Your task to perform on an android device: Go to accessibility settings Image 0: 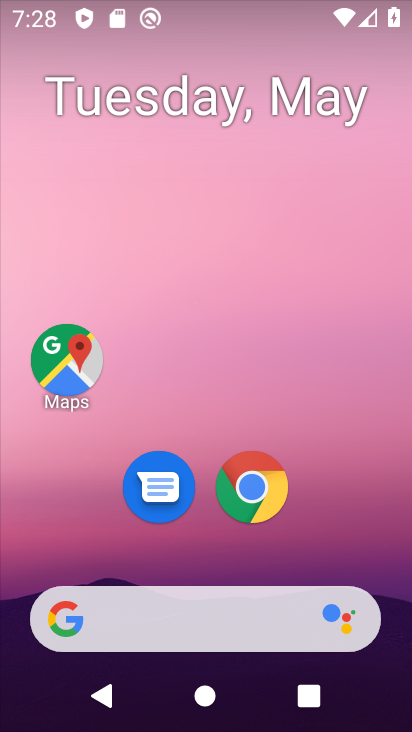
Step 0: drag from (393, 541) to (391, 177)
Your task to perform on an android device: Go to accessibility settings Image 1: 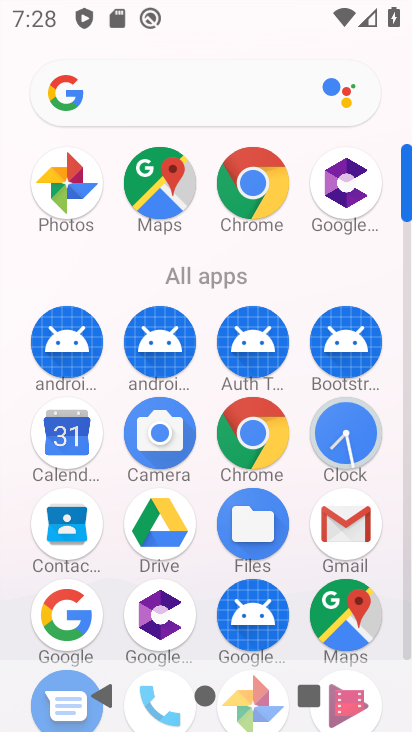
Step 1: drag from (386, 568) to (403, 249)
Your task to perform on an android device: Go to accessibility settings Image 2: 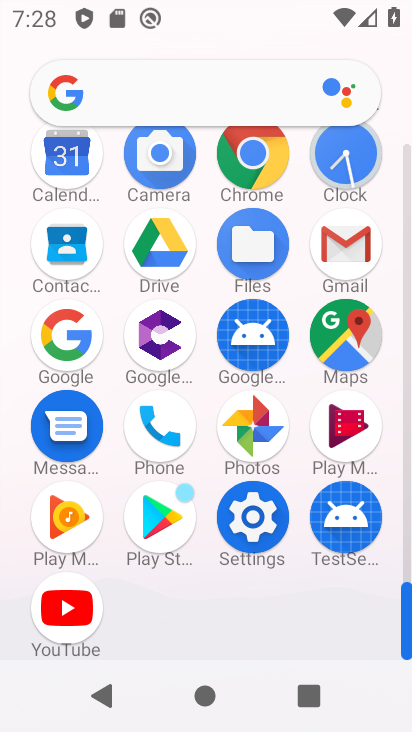
Step 2: click (262, 526)
Your task to perform on an android device: Go to accessibility settings Image 3: 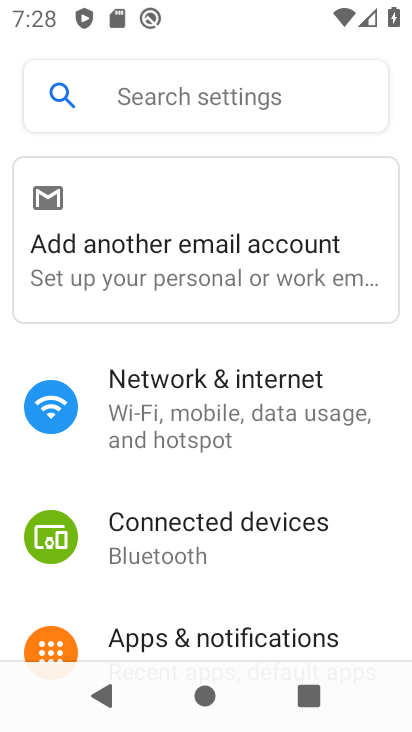
Step 3: drag from (365, 539) to (366, 385)
Your task to perform on an android device: Go to accessibility settings Image 4: 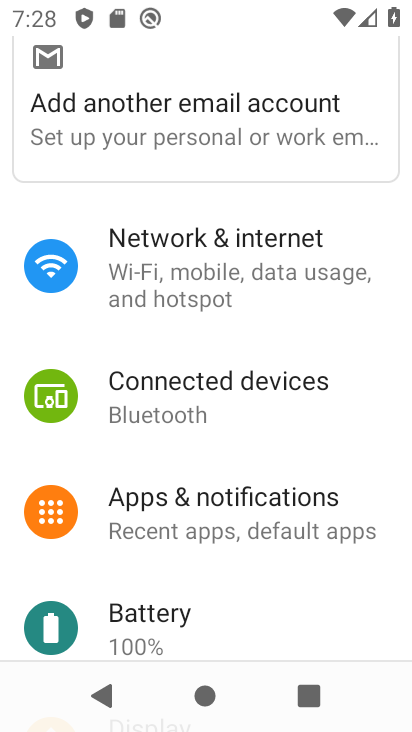
Step 4: drag from (359, 581) to (357, 451)
Your task to perform on an android device: Go to accessibility settings Image 5: 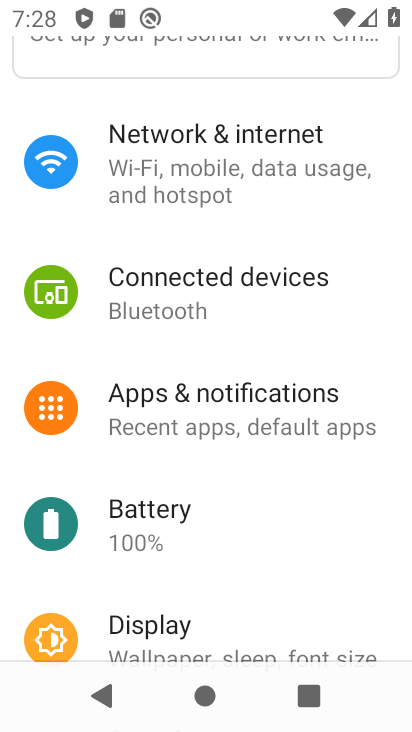
Step 5: drag from (357, 568) to (354, 391)
Your task to perform on an android device: Go to accessibility settings Image 6: 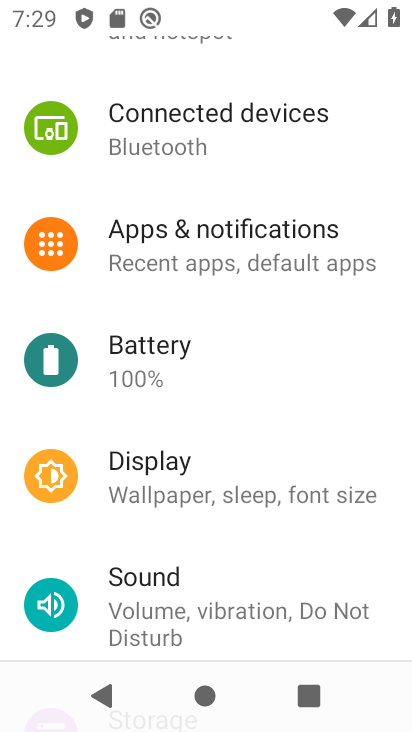
Step 6: drag from (332, 559) to (342, 433)
Your task to perform on an android device: Go to accessibility settings Image 7: 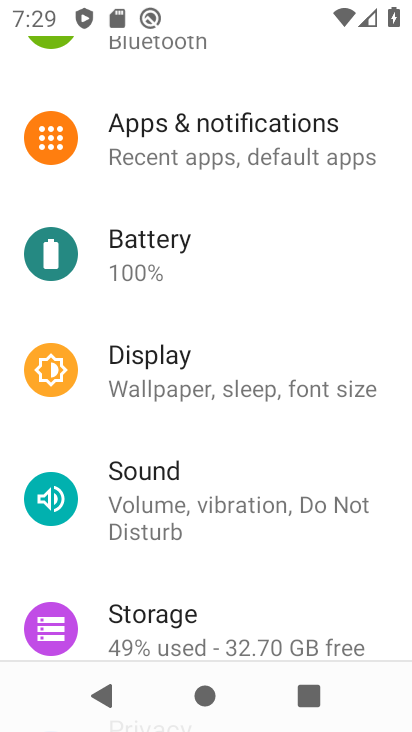
Step 7: drag from (340, 559) to (341, 421)
Your task to perform on an android device: Go to accessibility settings Image 8: 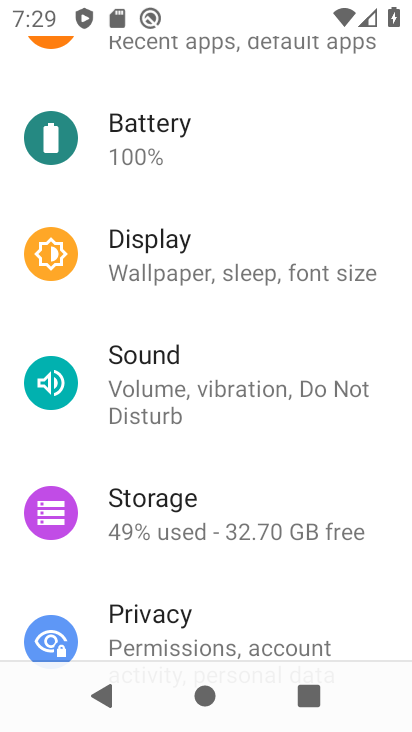
Step 8: drag from (346, 565) to (353, 426)
Your task to perform on an android device: Go to accessibility settings Image 9: 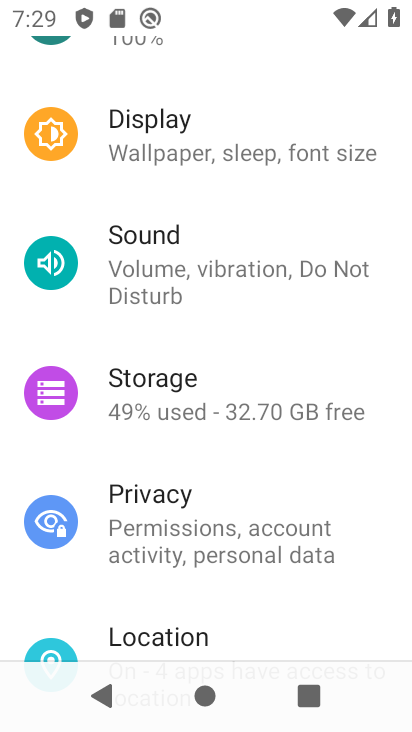
Step 9: drag from (360, 588) to (357, 428)
Your task to perform on an android device: Go to accessibility settings Image 10: 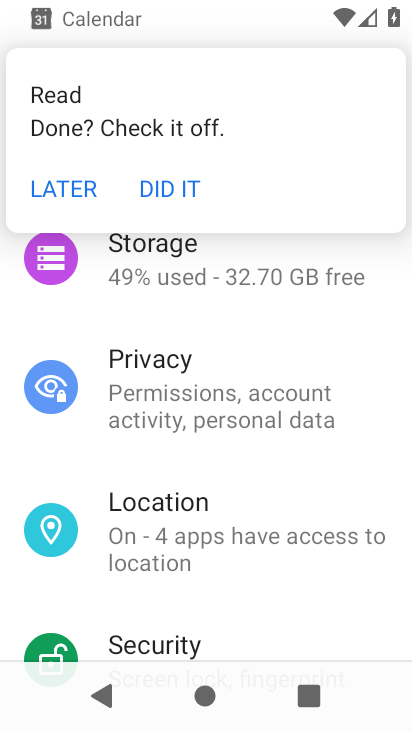
Step 10: drag from (354, 590) to (356, 428)
Your task to perform on an android device: Go to accessibility settings Image 11: 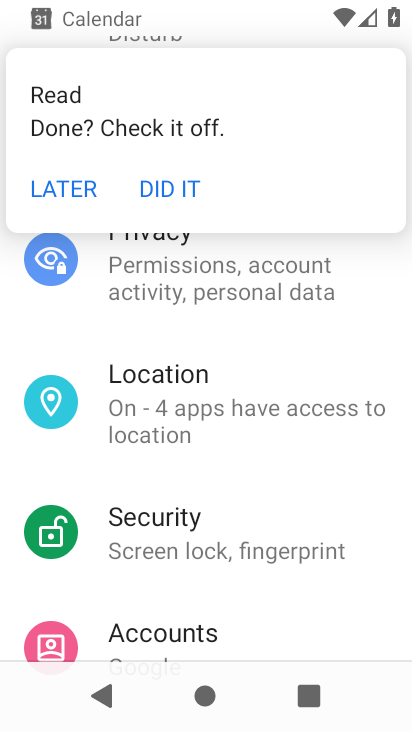
Step 11: drag from (344, 607) to (358, 438)
Your task to perform on an android device: Go to accessibility settings Image 12: 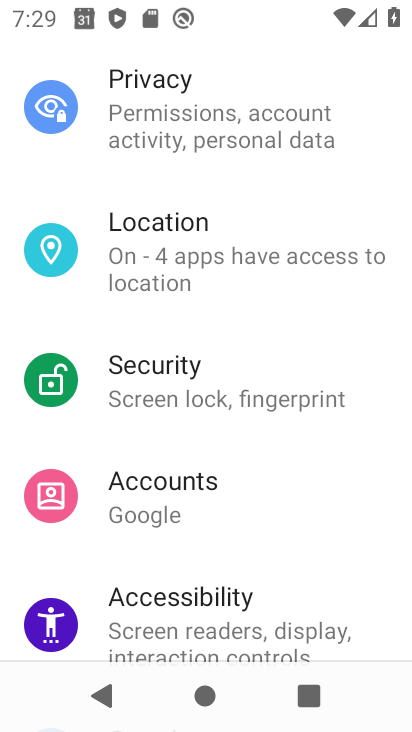
Step 12: drag from (312, 513) to (330, 319)
Your task to perform on an android device: Go to accessibility settings Image 13: 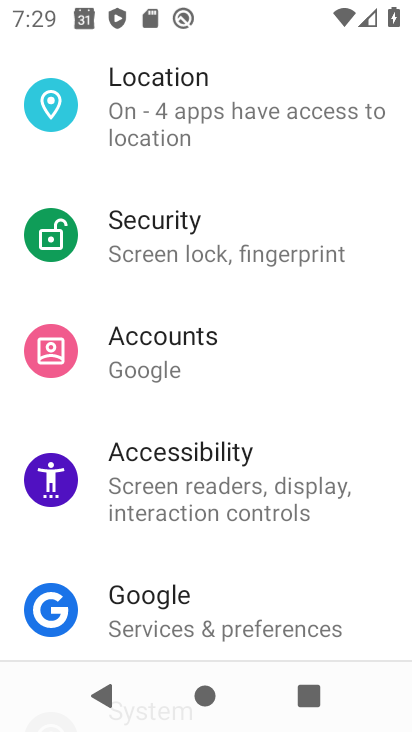
Step 13: drag from (348, 537) to (364, 284)
Your task to perform on an android device: Go to accessibility settings Image 14: 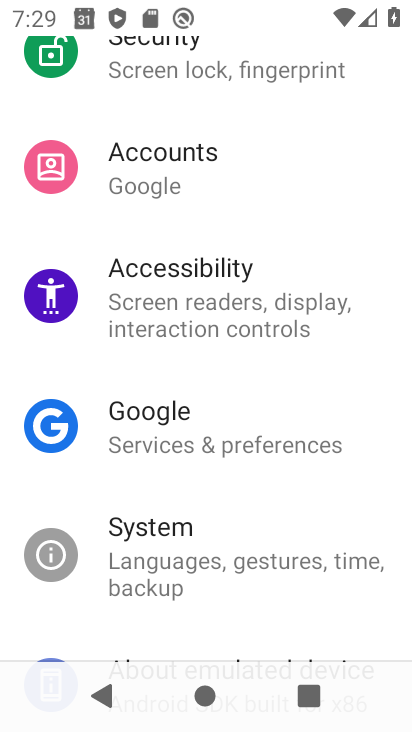
Step 14: drag from (356, 498) to (368, 338)
Your task to perform on an android device: Go to accessibility settings Image 15: 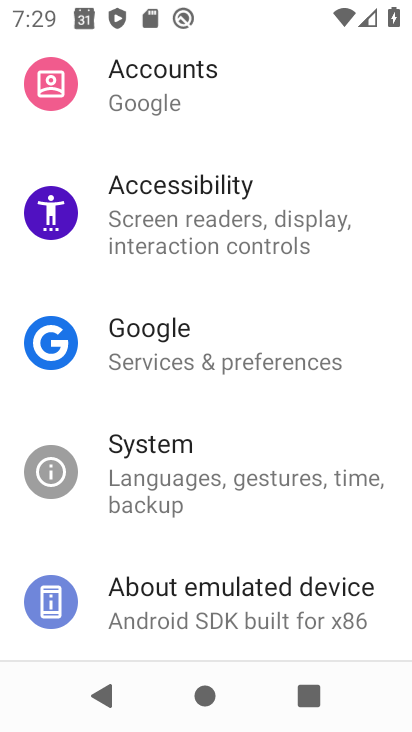
Step 15: click (247, 235)
Your task to perform on an android device: Go to accessibility settings Image 16: 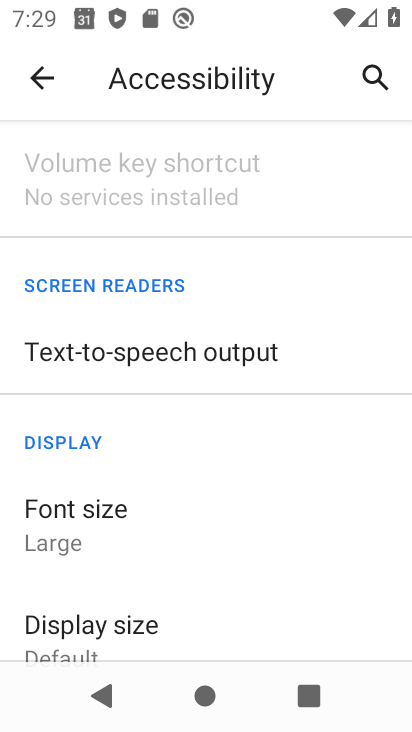
Step 16: task complete